Your task to perform on an android device: check storage Image 0: 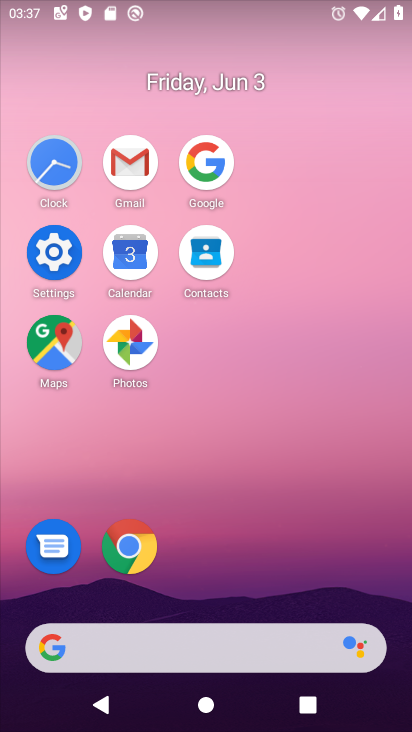
Step 0: click (63, 245)
Your task to perform on an android device: check storage Image 1: 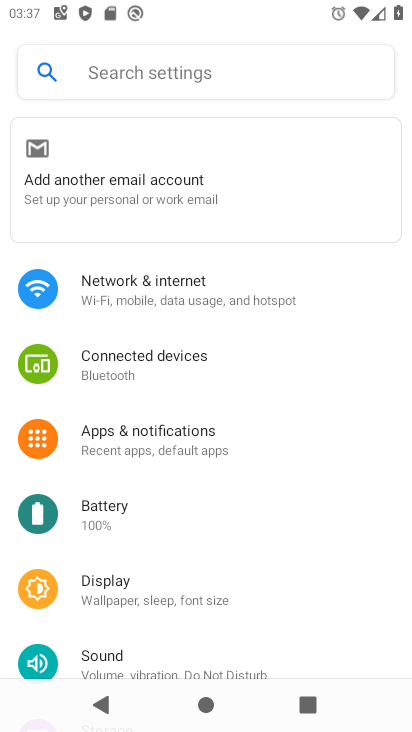
Step 1: drag from (190, 610) to (235, 373)
Your task to perform on an android device: check storage Image 2: 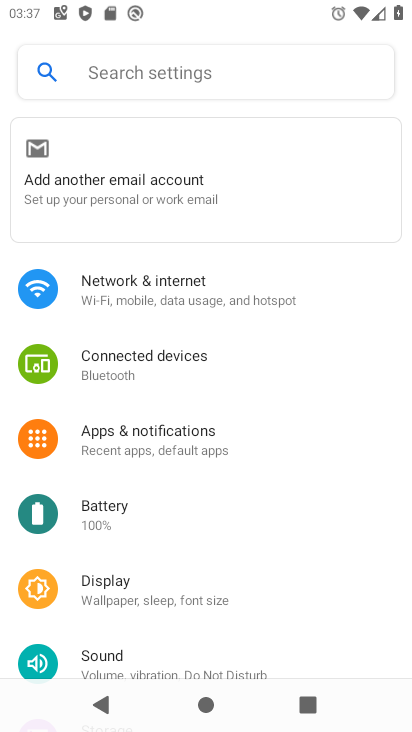
Step 2: drag from (233, 652) to (244, 330)
Your task to perform on an android device: check storage Image 3: 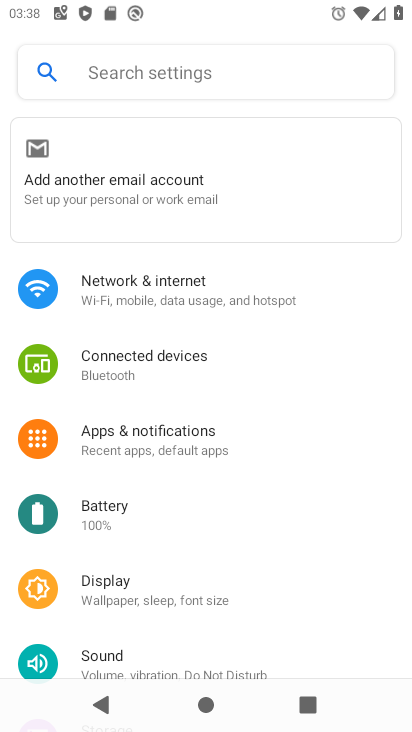
Step 3: drag from (290, 535) to (316, 157)
Your task to perform on an android device: check storage Image 4: 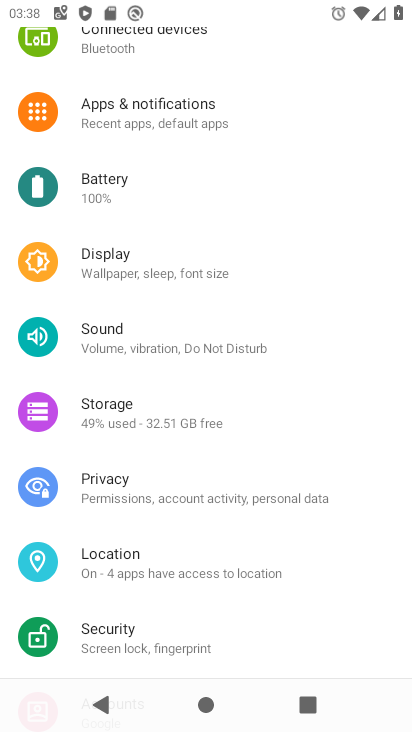
Step 4: click (172, 420)
Your task to perform on an android device: check storage Image 5: 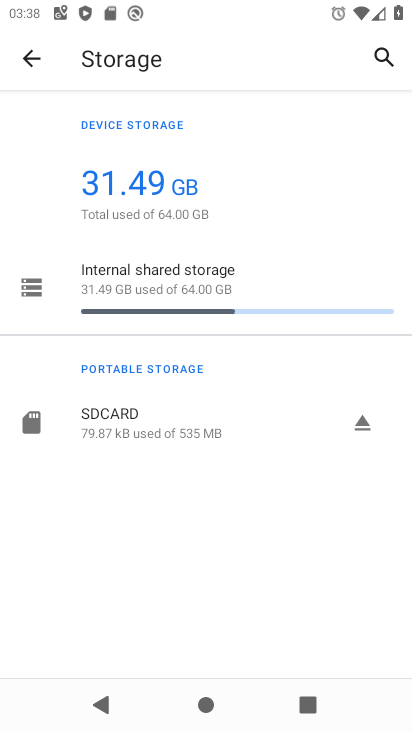
Step 5: task complete